Your task to perform on an android device: What is the news today? Image 0: 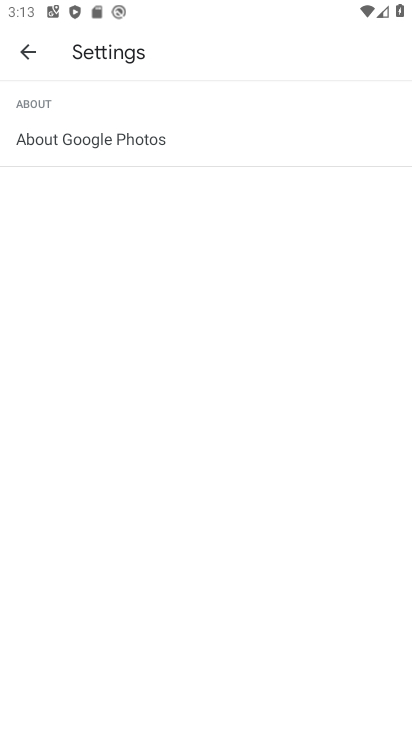
Step 0: press home button
Your task to perform on an android device: What is the news today? Image 1: 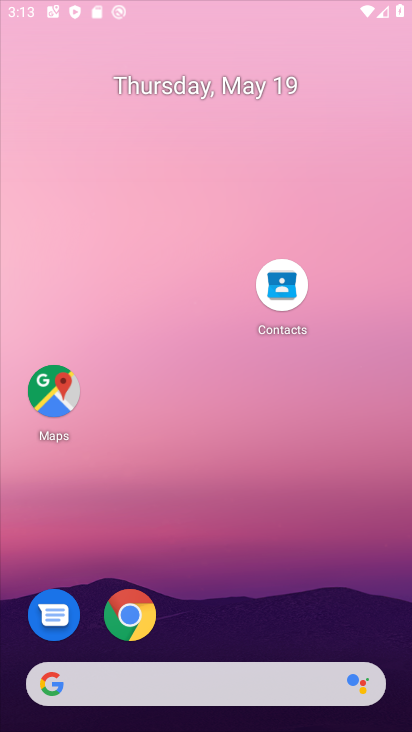
Step 1: drag from (204, 688) to (222, 127)
Your task to perform on an android device: What is the news today? Image 2: 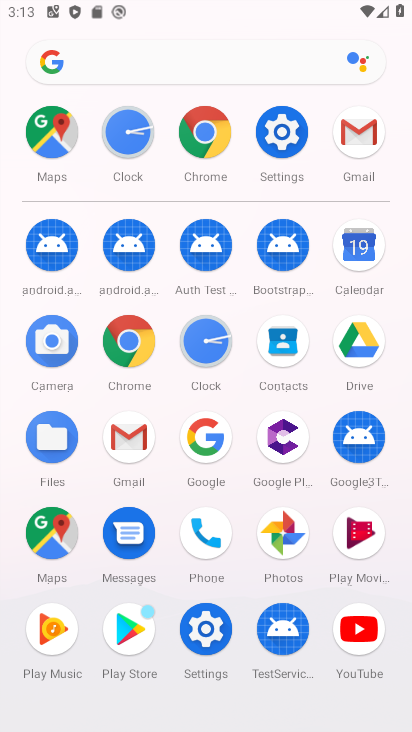
Step 2: click (214, 458)
Your task to perform on an android device: What is the news today? Image 3: 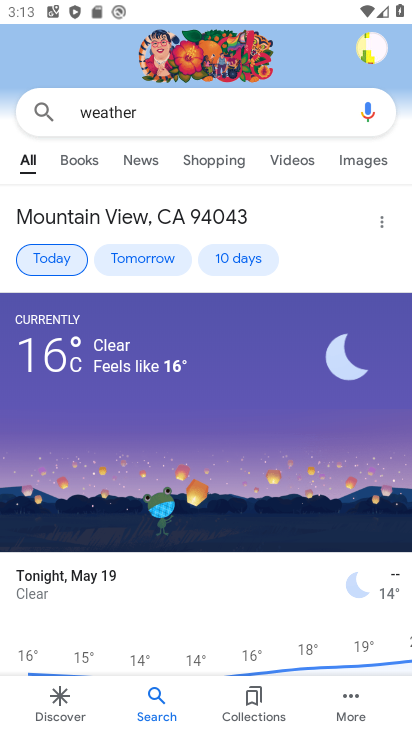
Step 3: click (182, 121)
Your task to perform on an android device: What is the news today? Image 4: 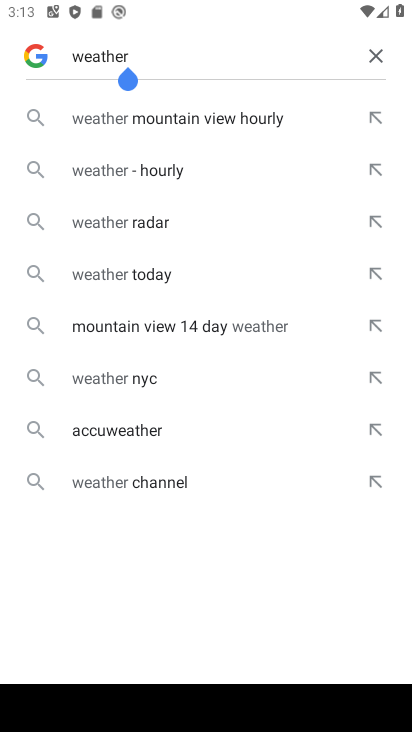
Step 4: click (382, 58)
Your task to perform on an android device: What is the news today? Image 5: 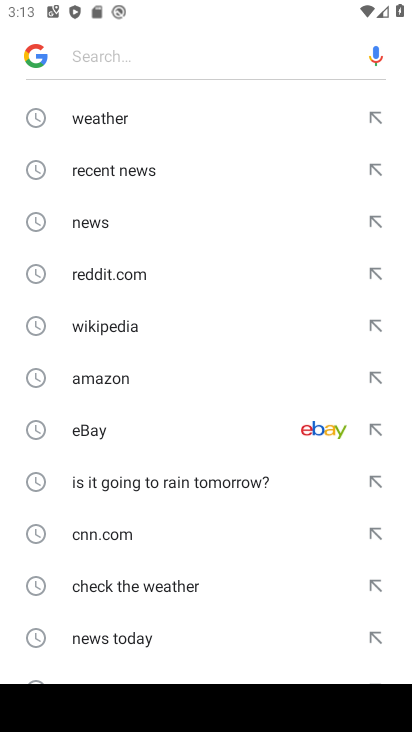
Step 5: click (154, 228)
Your task to perform on an android device: What is the news today? Image 6: 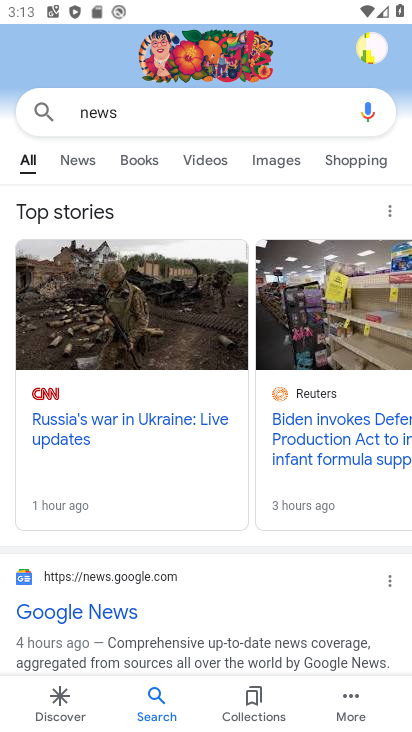
Step 6: click (92, 166)
Your task to perform on an android device: What is the news today? Image 7: 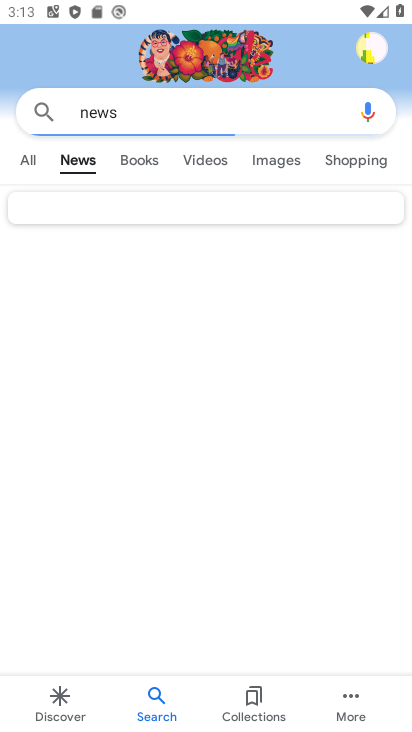
Step 7: task complete